Your task to perform on an android device: turn off notifications in google photos Image 0: 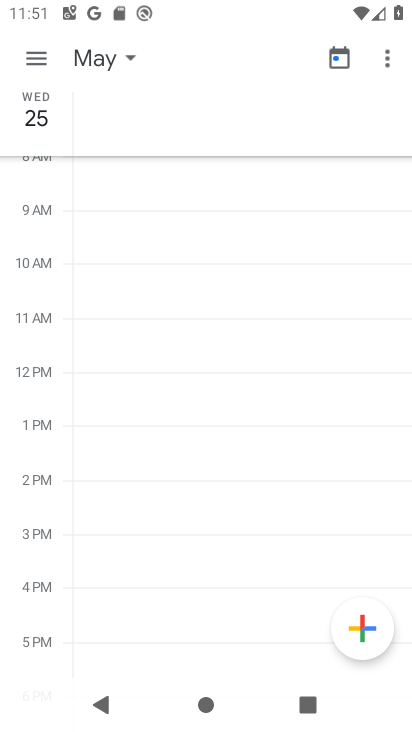
Step 0: press home button
Your task to perform on an android device: turn off notifications in google photos Image 1: 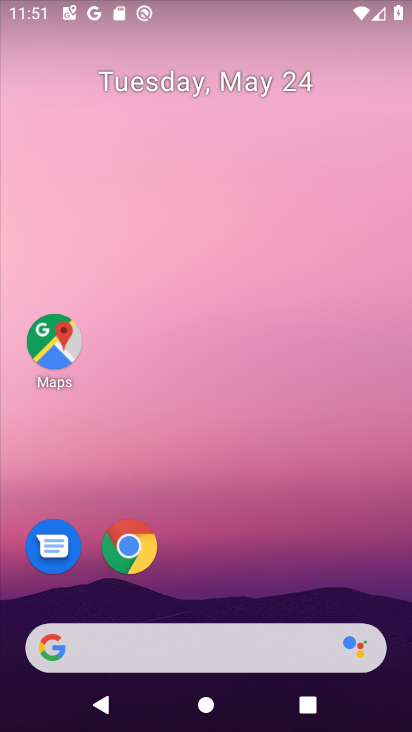
Step 1: drag from (196, 586) to (238, 294)
Your task to perform on an android device: turn off notifications in google photos Image 2: 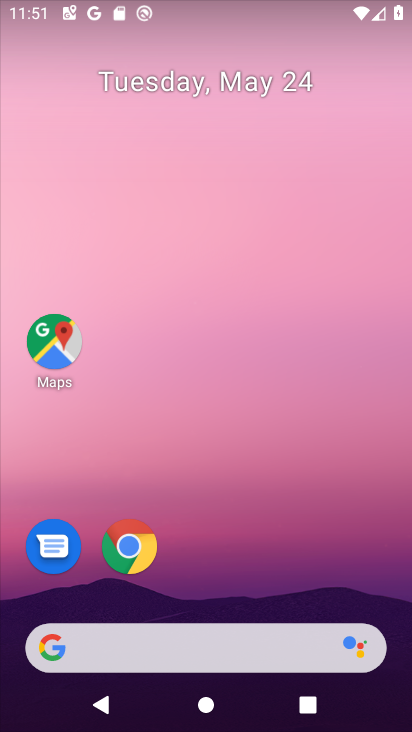
Step 2: drag from (235, 588) to (278, 8)
Your task to perform on an android device: turn off notifications in google photos Image 3: 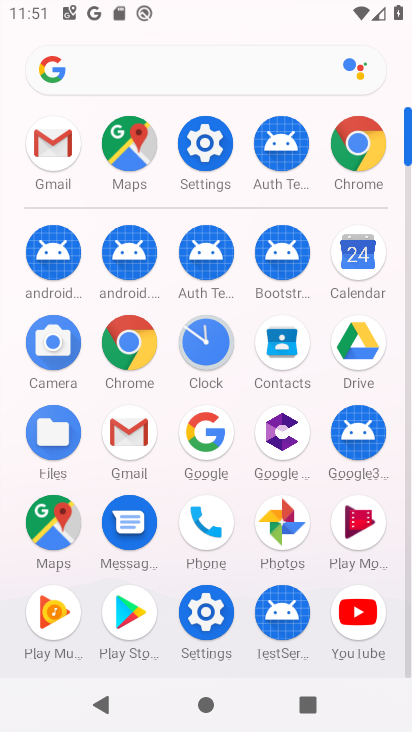
Step 3: click (272, 534)
Your task to perform on an android device: turn off notifications in google photos Image 4: 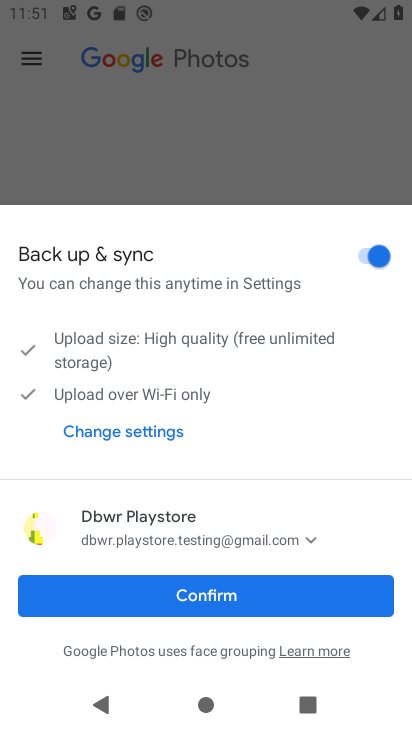
Step 4: click (192, 585)
Your task to perform on an android device: turn off notifications in google photos Image 5: 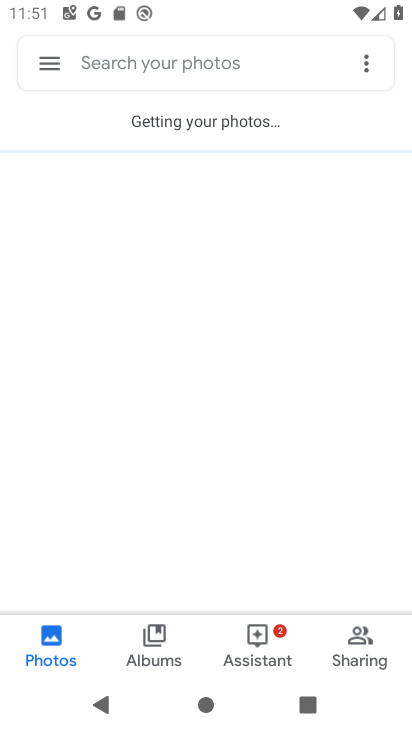
Step 5: click (45, 71)
Your task to perform on an android device: turn off notifications in google photos Image 6: 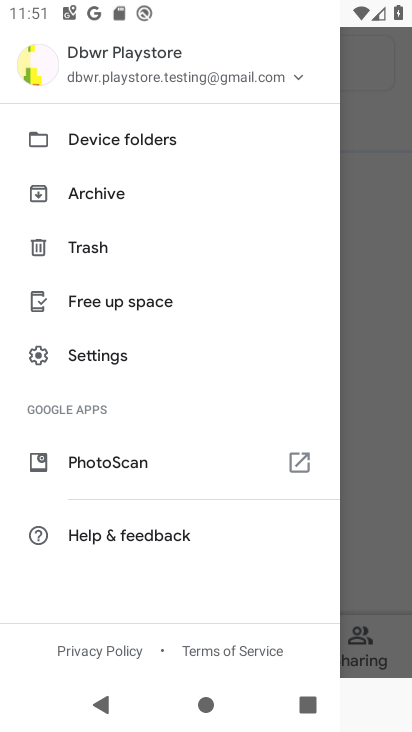
Step 6: click (108, 363)
Your task to perform on an android device: turn off notifications in google photos Image 7: 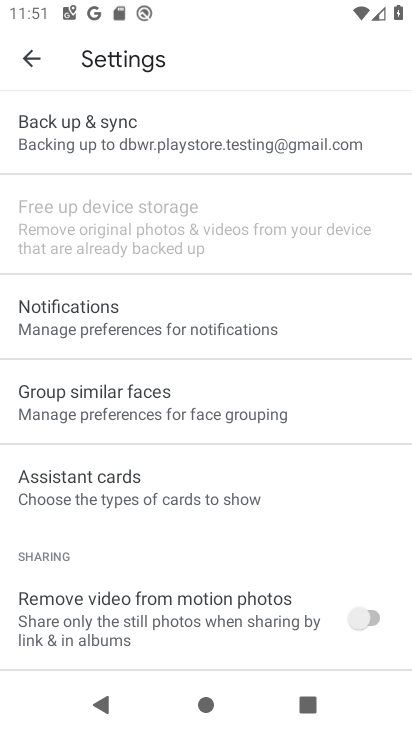
Step 7: click (134, 325)
Your task to perform on an android device: turn off notifications in google photos Image 8: 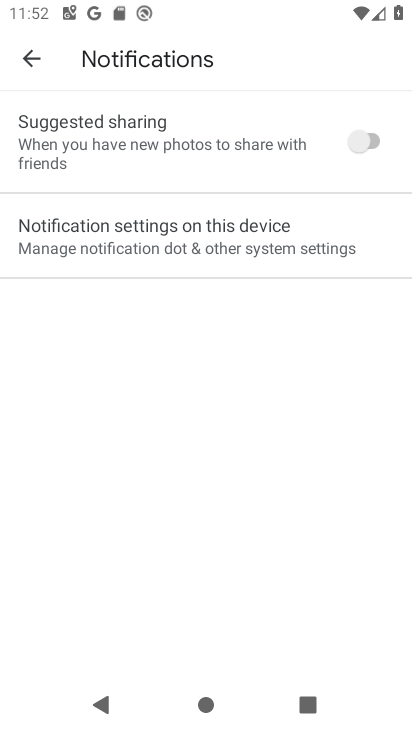
Step 8: click (131, 246)
Your task to perform on an android device: turn off notifications in google photos Image 9: 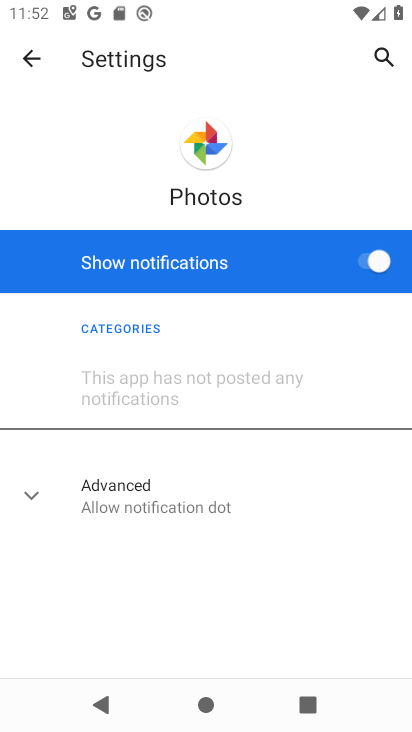
Step 9: click (367, 271)
Your task to perform on an android device: turn off notifications in google photos Image 10: 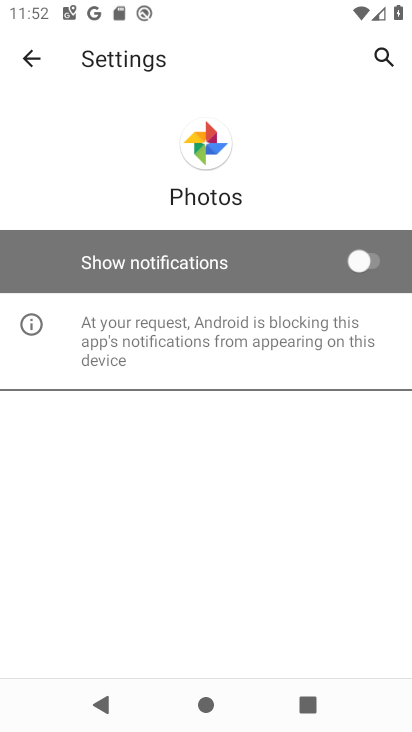
Step 10: task complete